Your task to perform on an android device: empty trash in the gmail app Image 0: 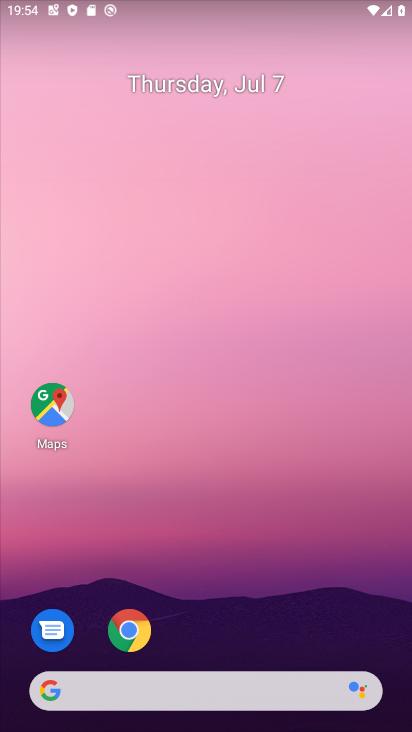
Step 0: drag from (241, 645) to (197, 3)
Your task to perform on an android device: empty trash in the gmail app Image 1: 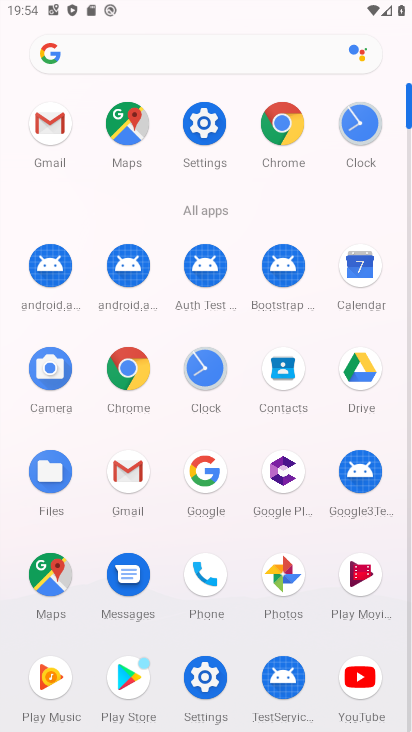
Step 1: click (53, 132)
Your task to perform on an android device: empty trash in the gmail app Image 2: 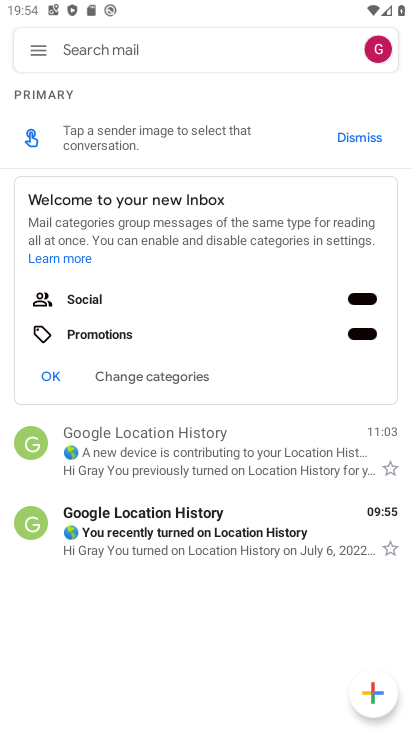
Step 2: click (36, 62)
Your task to perform on an android device: empty trash in the gmail app Image 3: 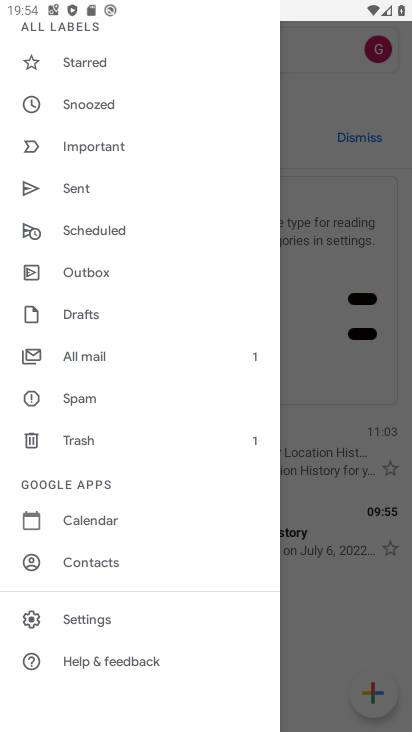
Step 3: click (70, 439)
Your task to perform on an android device: empty trash in the gmail app Image 4: 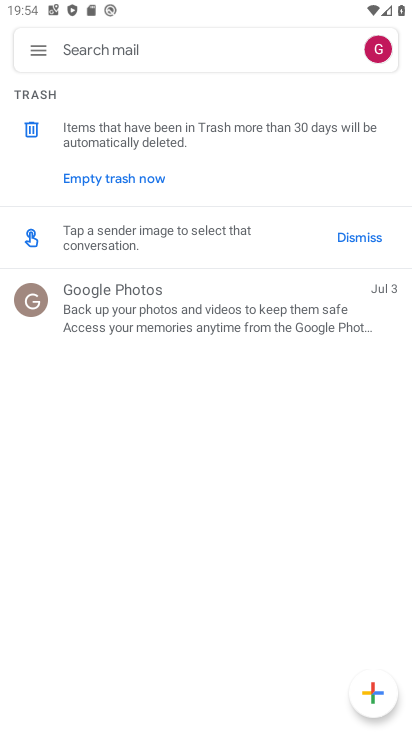
Step 4: click (107, 183)
Your task to perform on an android device: empty trash in the gmail app Image 5: 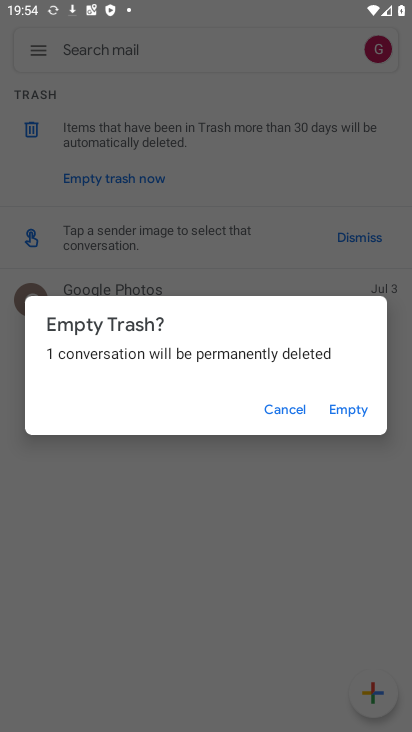
Step 5: click (351, 426)
Your task to perform on an android device: empty trash in the gmail app Image 6: 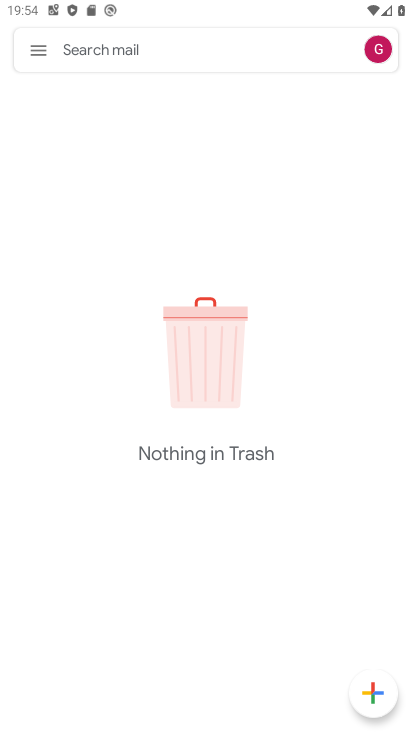
Step 6: task complete